Your task to perform on an android device: turn on sleep mode Image 0: 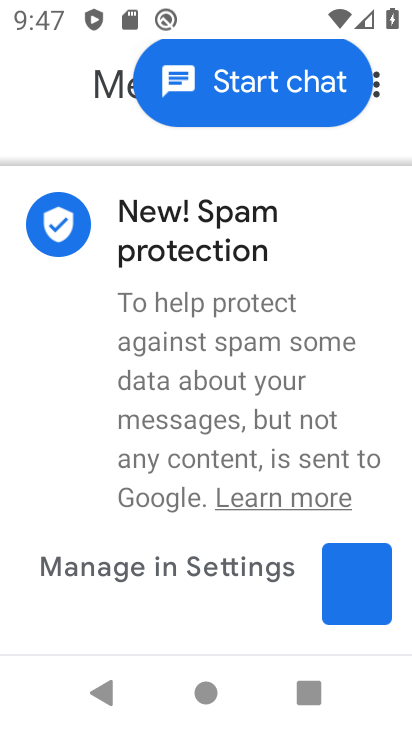
Step 0: press home button
Your task to perform on an android device: turn on sleep mode Image 1: 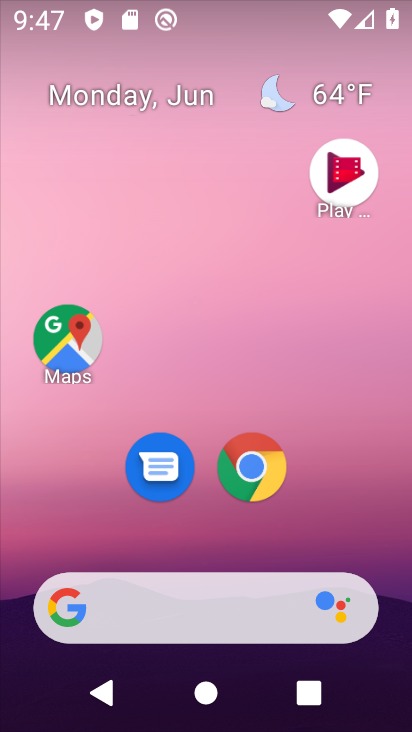
Step 1: drag from (121, 570) to (149, 24)
Your task to perform on an android device: turn on sleep mode Image 2: 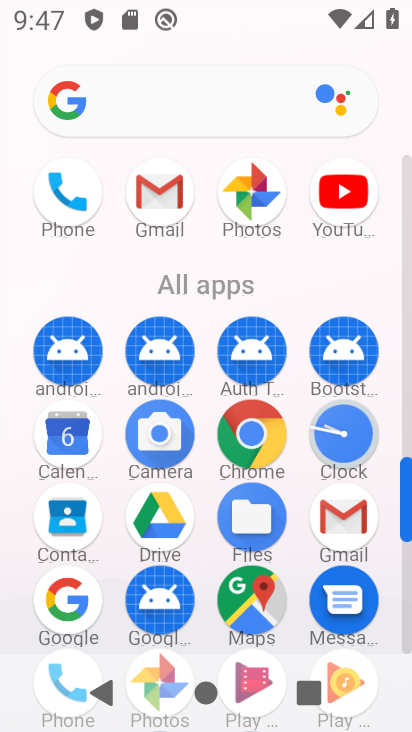
Step 2: drag from (218, 639) to (257, 343)
Your task to perform on an android device: turn on sleep mode Image 3: 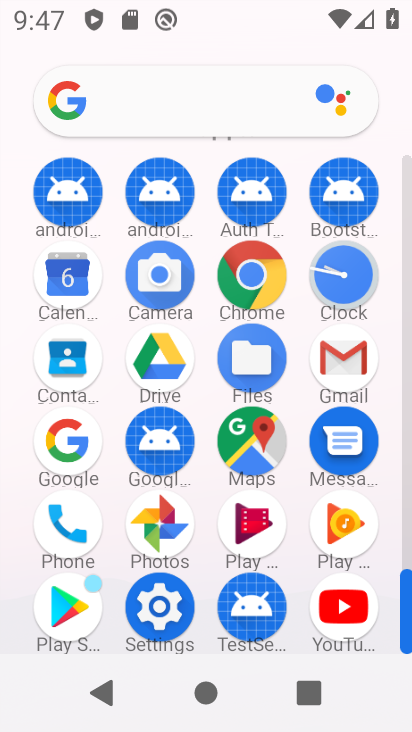
Step 3: click (148, 611)
Your task to perform on an android device: turn on sleep mode Image 4: 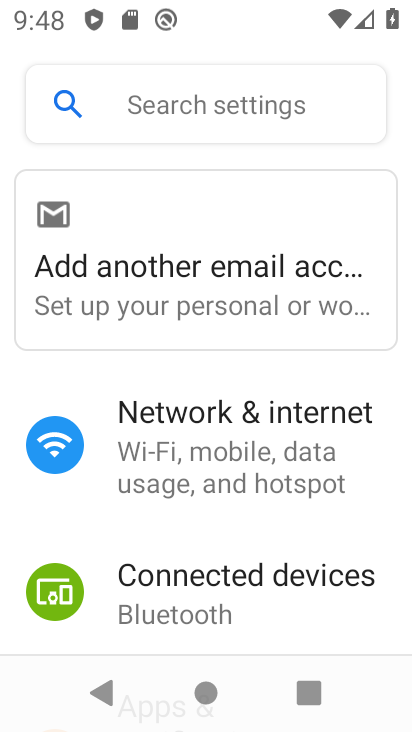
Step 4: drag from (291, 585) to (382, 127)
Your task to perform on an android device: turn on sleep mode Image 5: 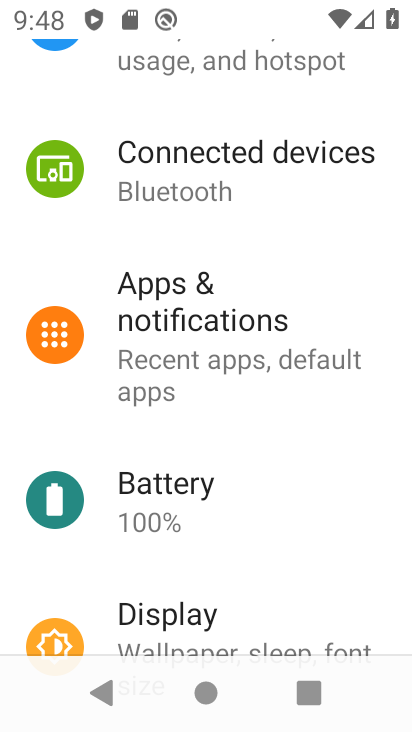
Step 5: click (189, 604)
Your task to perform on an android device: turn on sleep mode Image 6: 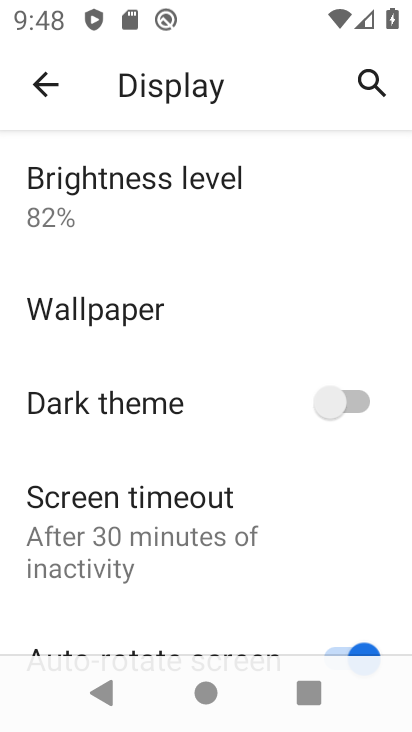
Step 6: drag from (175, 547) to (245, 182)
Your task to perform on an android device: turn on sleep mode Image 7: 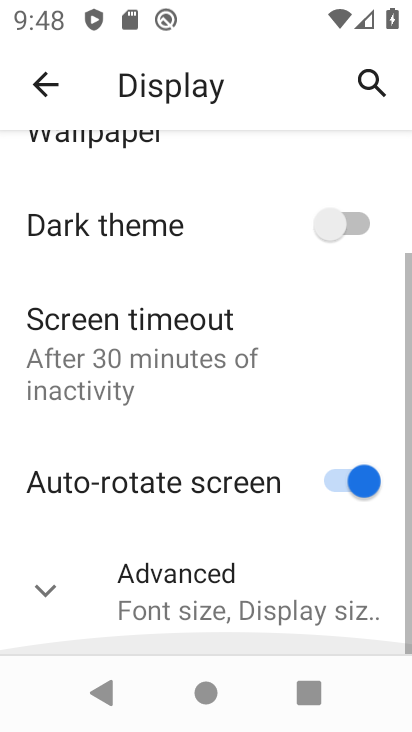
Step 7: click (230, 618)
Your task to perform on an android device: turn on sleep mode Image 8: 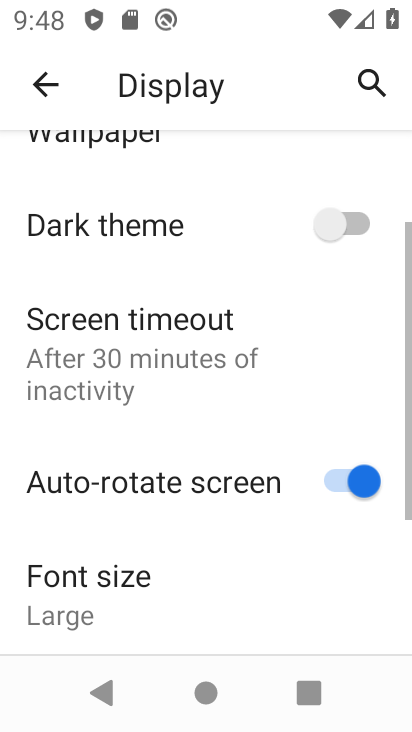
Step 8: task complete